Your task to perform on an android device: Go to Google Image 0: 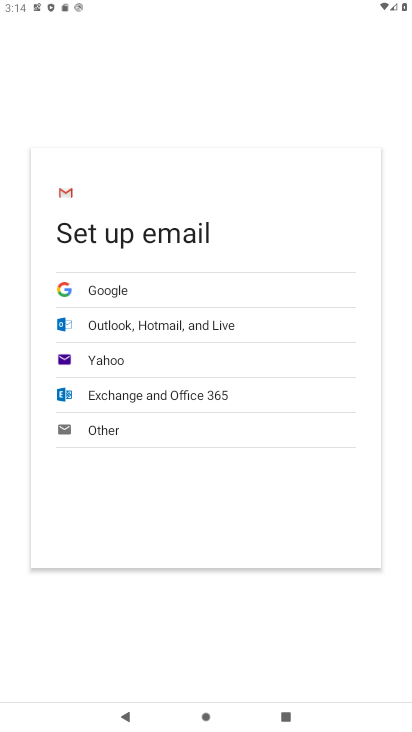
Step 0: press home button
Your task to perform on an android device: Go to Google Image 1: 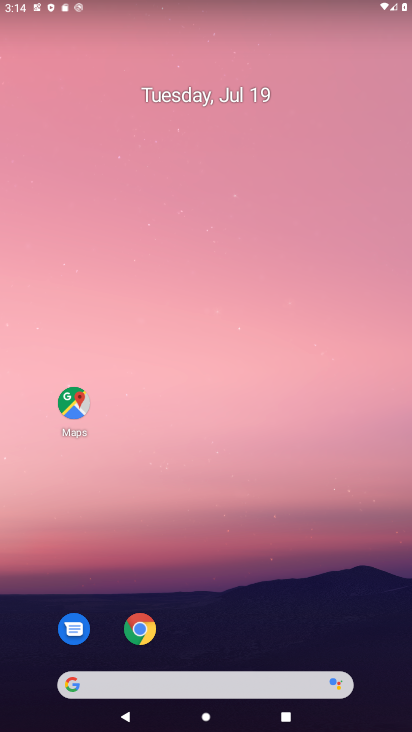
Step 1: drag from (208, 685) to (98, 68)
Your task to perform on an android device: Go to Google Image 2: 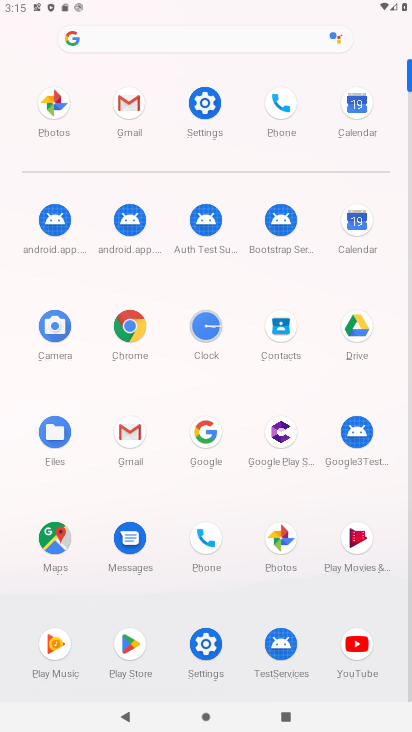
Step 2: click (201, 425)
Your task to perform on an android device: Go to Google Image 3: 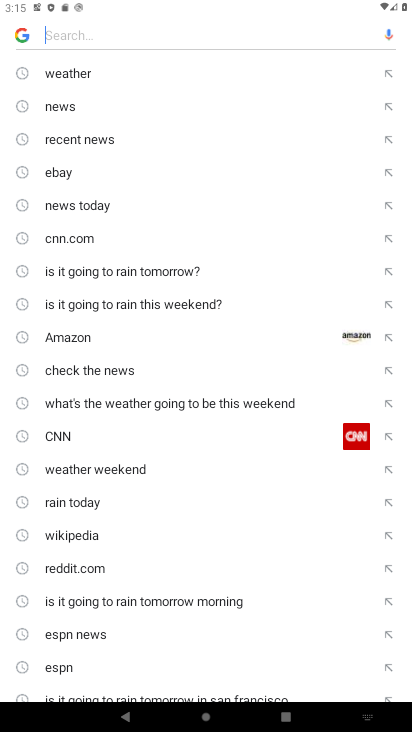
Step 3: task complete